Your task to perform on an android device: Search for a new lawnmower on Lowes.com Image 0: 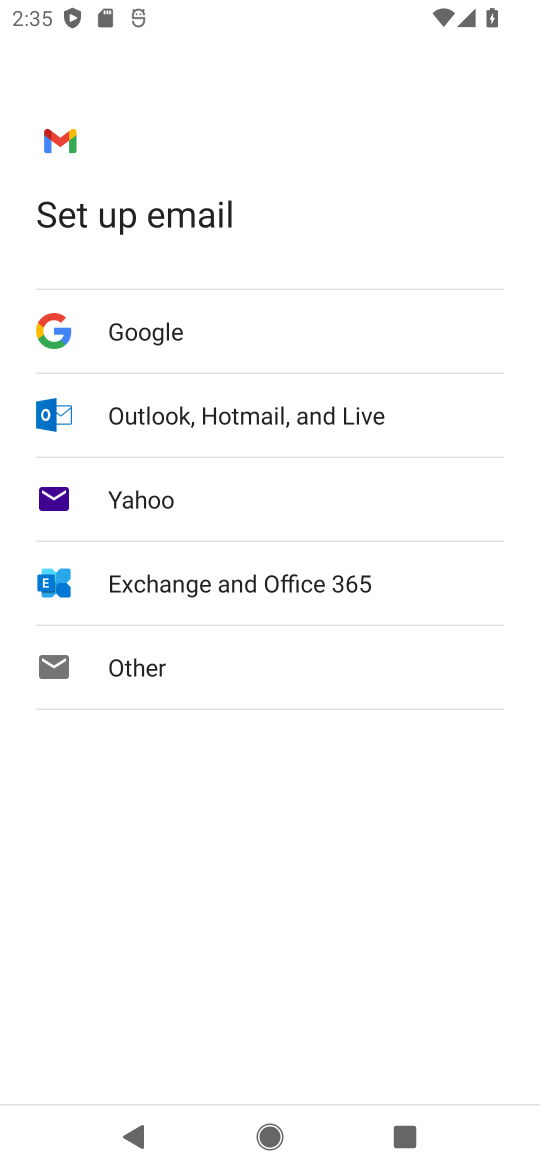
Step 0: press home button
Your task to perform on an android device: Search for a new lawnmower on Lowes.com Image 1: 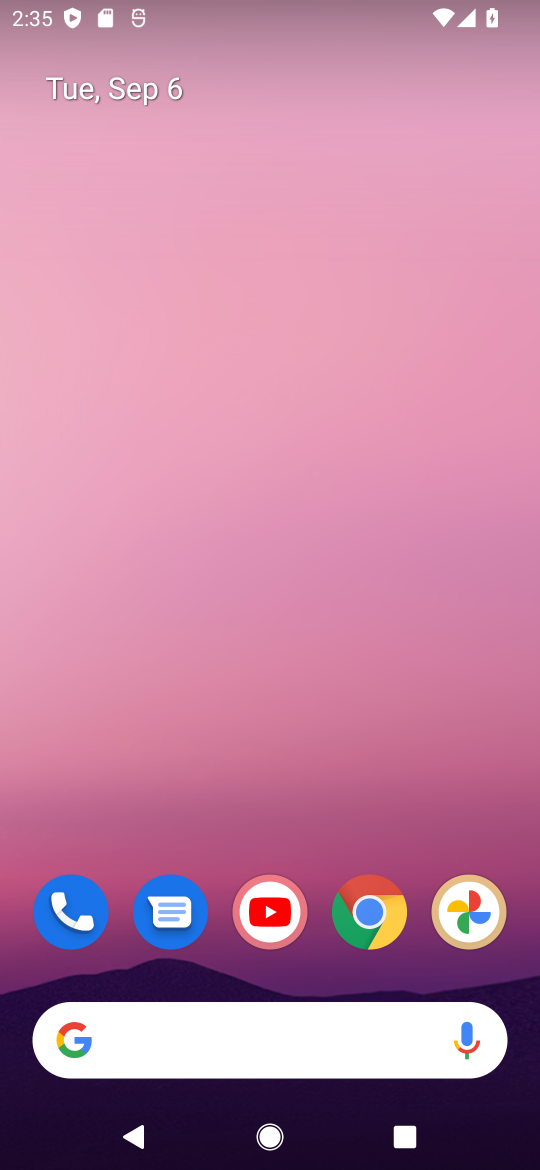
Step 1: click (354, 908)
Your task to perform on an android device: Search for a new lawnmower on Lowes.com Image 2: 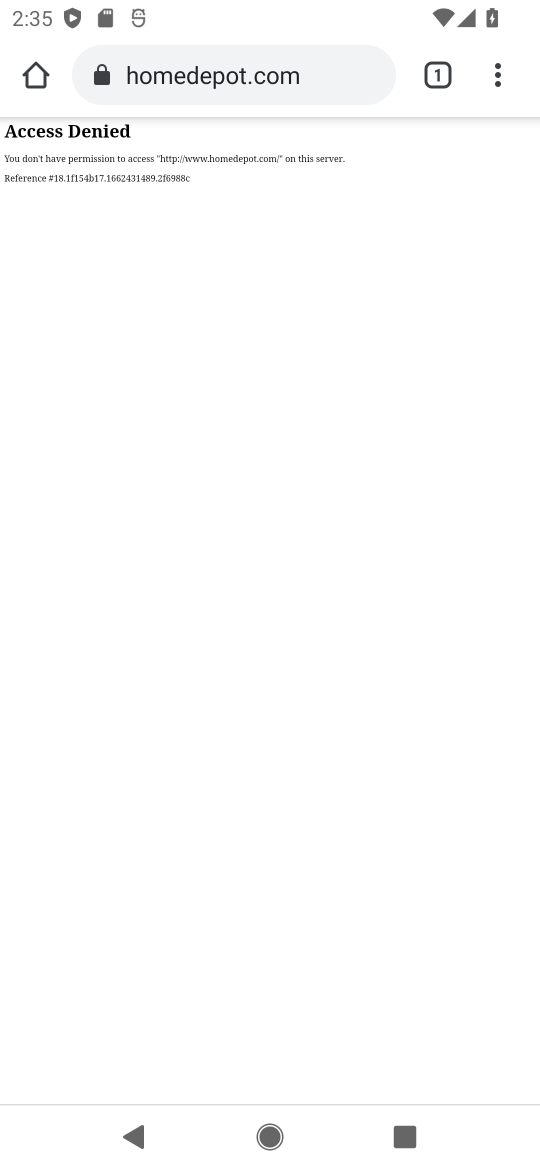
Step 2: click (197, 67)
Your task to perform on an android device: Search for a new lawnmower on Lowes.com Image 3: 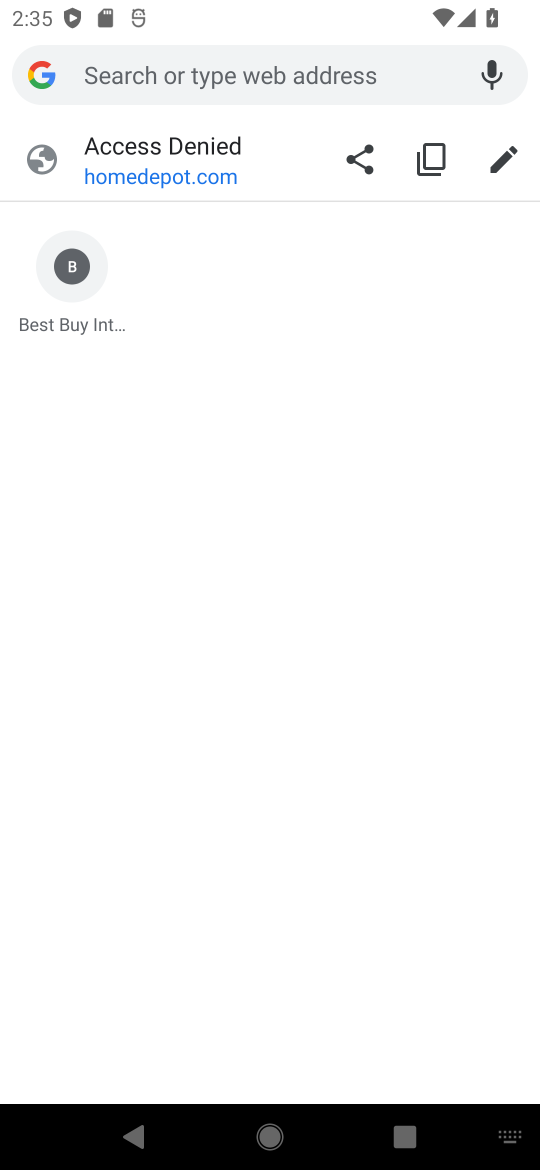
Step 3: type "Home Depot"
Your task to perform on an android device: Search for a new lawnmower on Lowes.com Image 4: 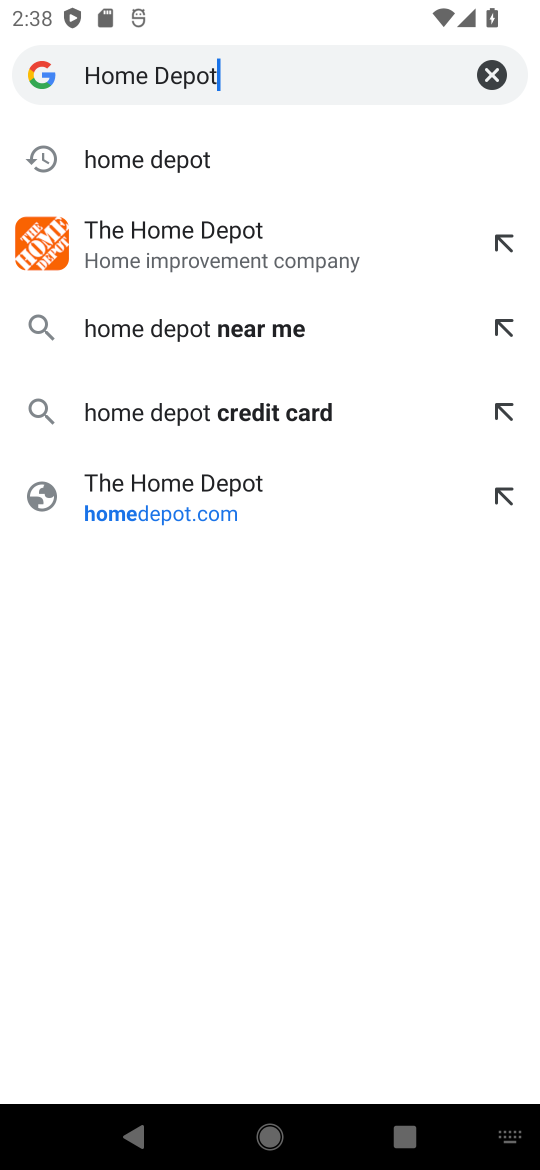
Step 4: click (159, 145)
Your task to perform on an android device: Search for a new lawnmower on Lowes.com Image 5: 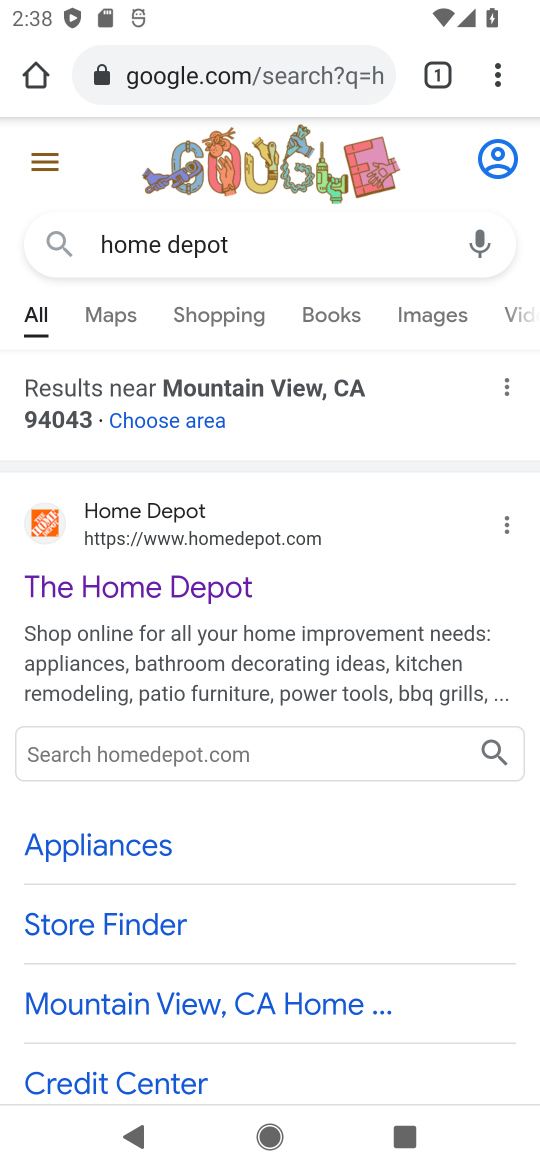
Step 5: click (98, 585)
Your task to perform on an android device: Search for a new lawnmower on Lowes.com Image 6: 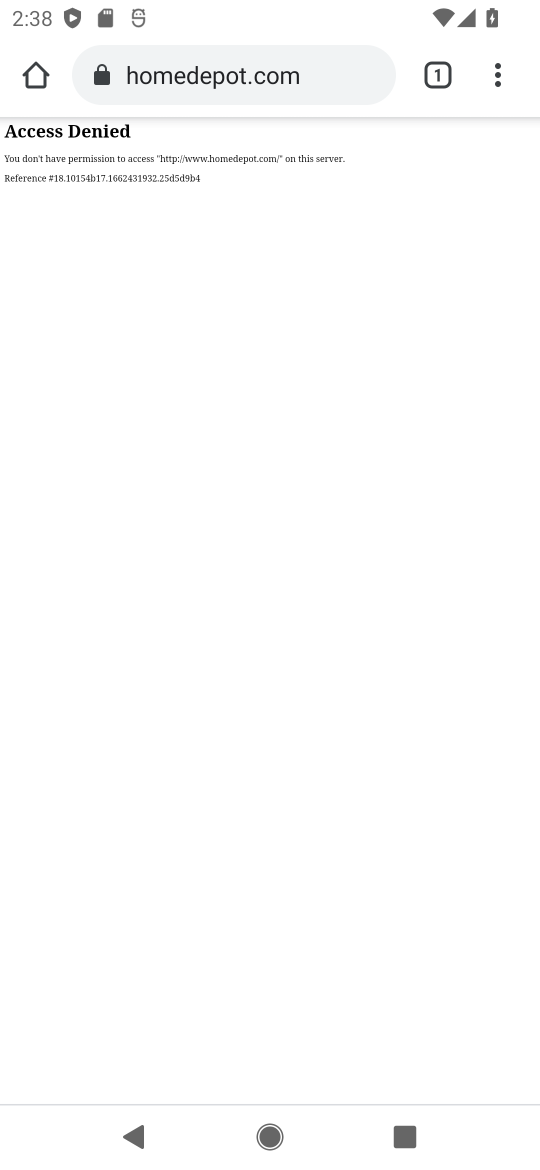
Step 6: task complete